Your task to perform on an android device: toggle airplane mode Image 0: 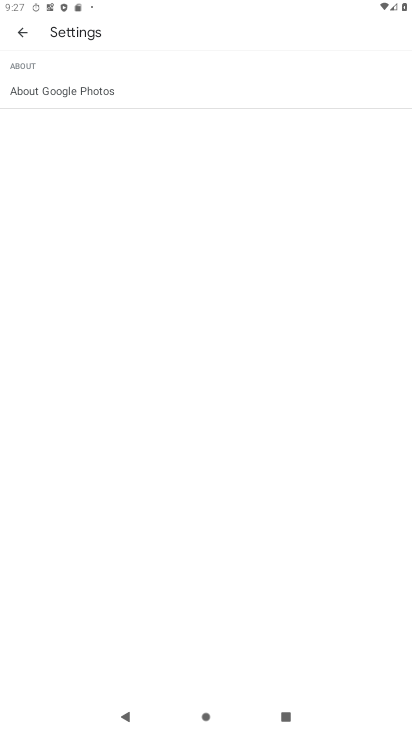
Step 0: click (16, 36)
Your task to perform on an android device: toggle airplane mode Image 1: 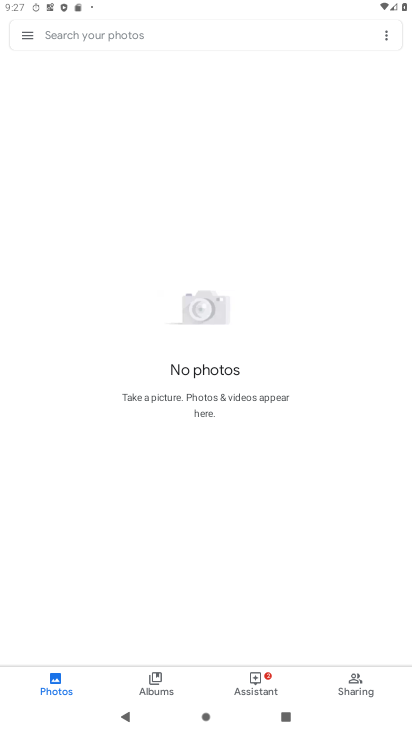
Step 1: press back button
Your task to perform on an android device: toggle airplane mode Image 2: 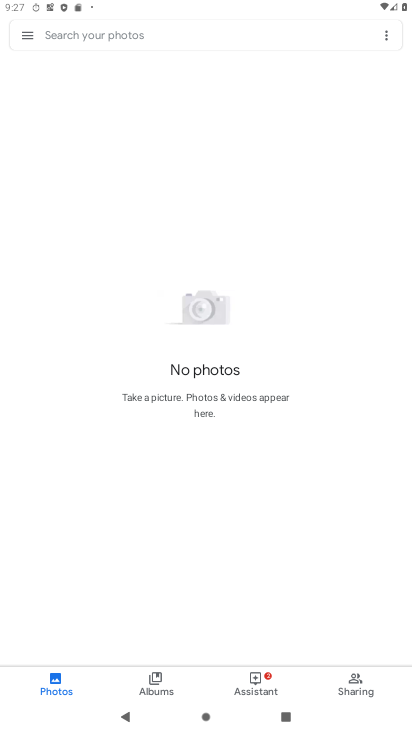
Step 2: press back button
Your task to perform on an android device: toggle airplane mode Image 3: 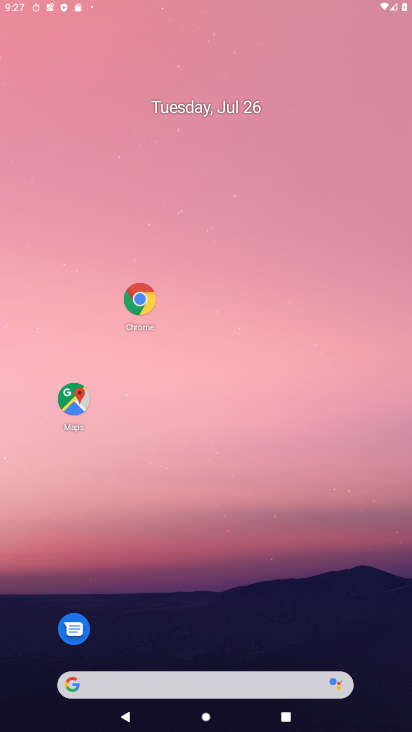
Step 3: press back button
Your task to perform on an android device: toggle airplane mode Image 4: 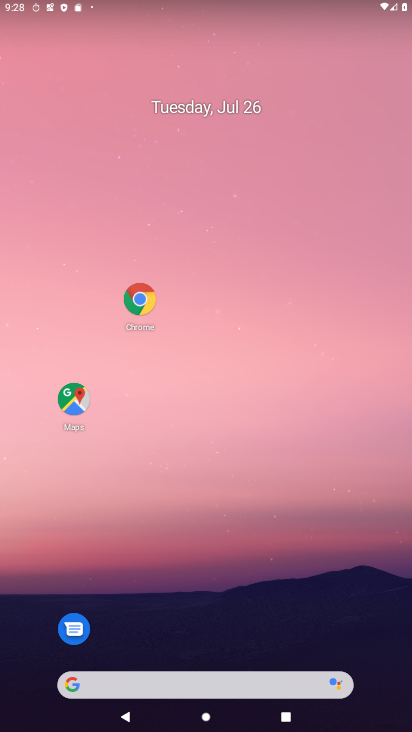
Step 4: click (174, 217)
Your task to perform on an android device: toggle airplane mode Image 5: 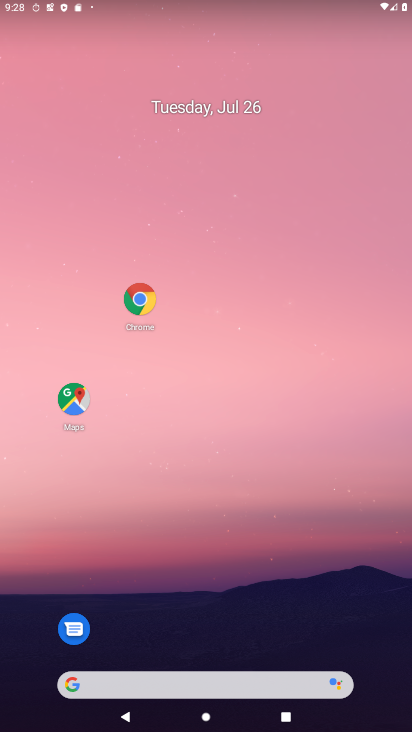
Step 5: drag from (232, 407) to (201, 73)
Your task to perform on an android device: toggle airplane mode Image 6: 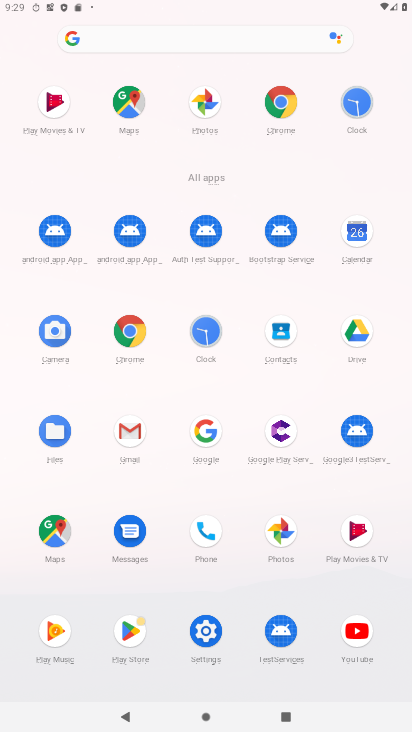
Step 6: click (202, 640)
Your task to perform on an android device: toggle airplane mode Image 7: 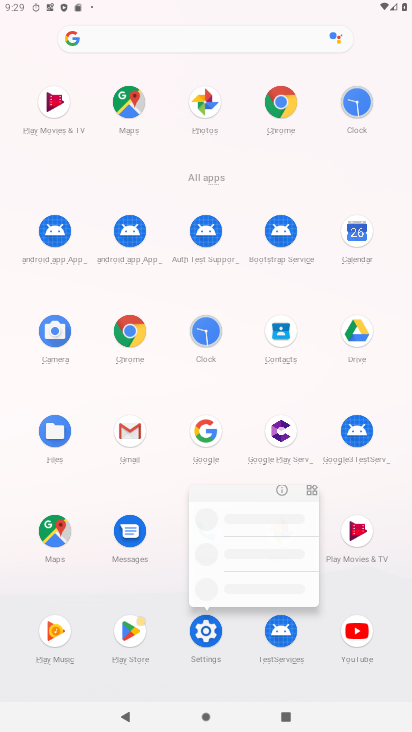
Step 7: click (211, 633)
Your task to perform on an android device: toggle airplane mode Image 8: 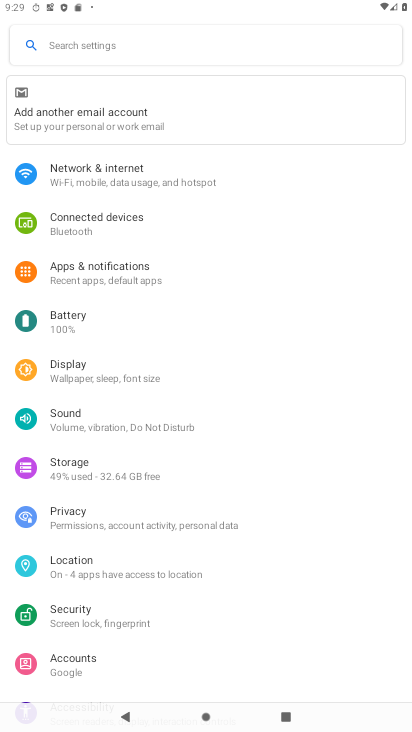
Step 8: click (108, 277)
Your task to perform on an android device: toggle airplane mode Image 9: 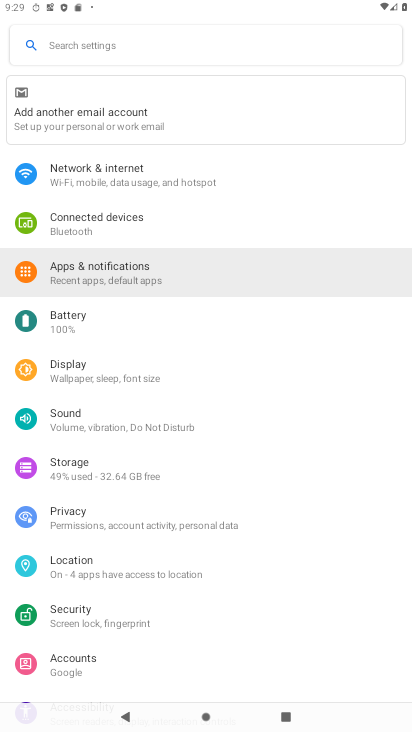
Step 9: click (109, 276)
Your task to perform on an android device: toggle airplane mode Image 10: 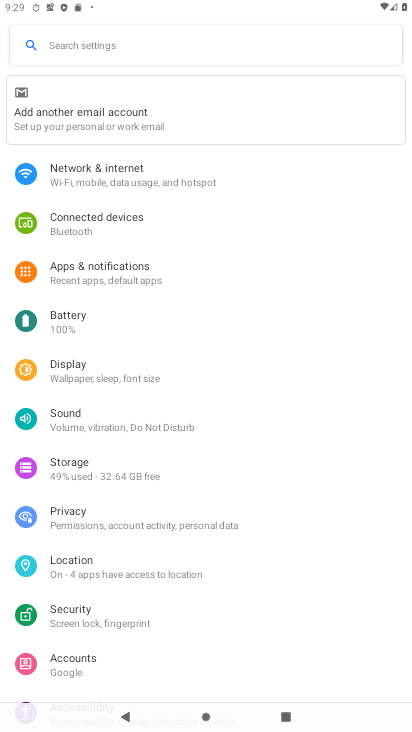
Step 10: click (111, 278)
Your task to perform on an android device: toggle airplane mode Image 11: 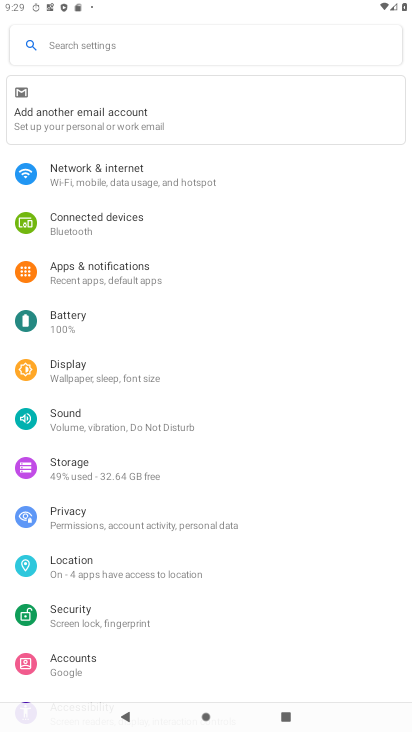
Step 11: click (111, 278)
Your task to perform on an android device: toggle airplane mode Image 12: 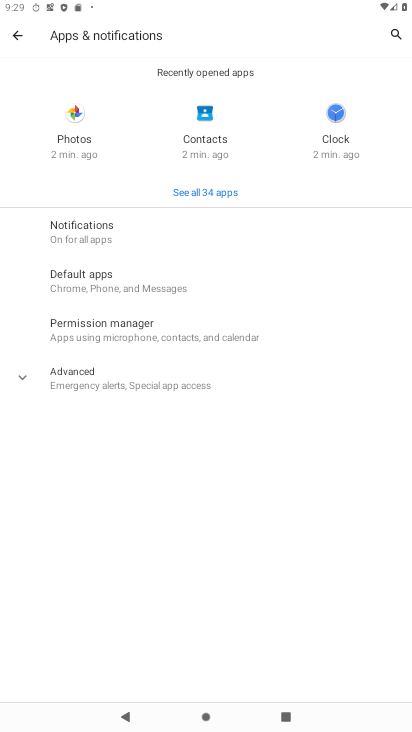
Step 12: click (18, 32)
Your task to perform on an android device: toggle airplane mode Image 13: 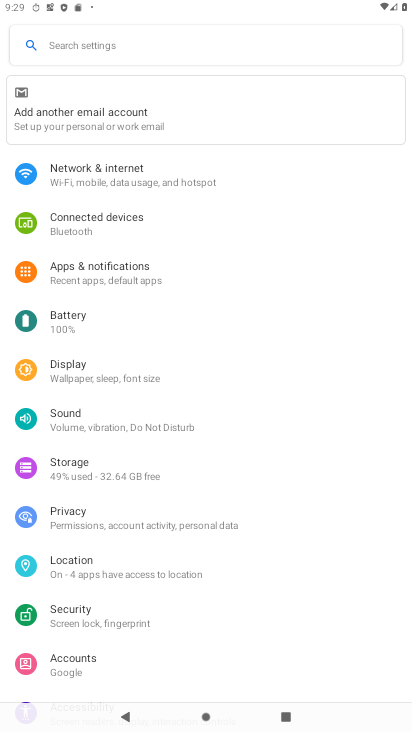
Step 13: click (104, 177)
Your task to perform on an android device: toggle airplane mode Image 14: 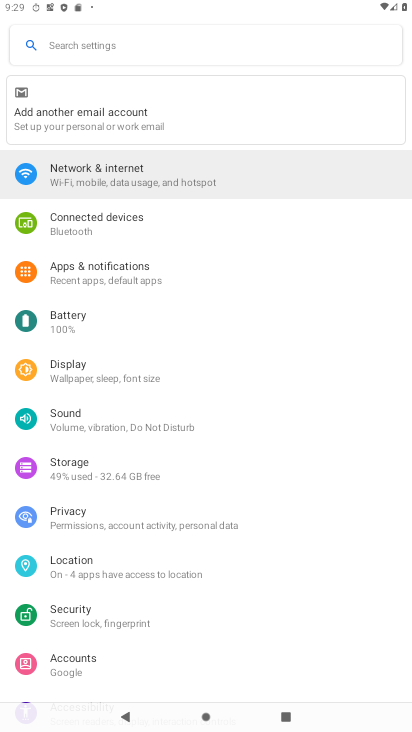
Step 14: click (105, 171)
Your task to perform on an android device: toggle airplane mode Image 15: 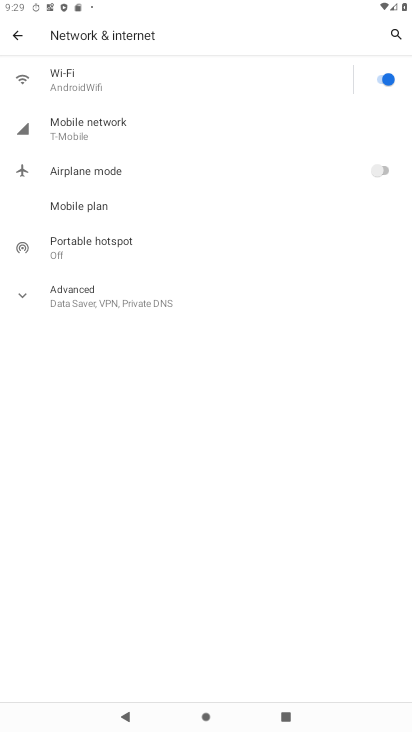
Step 15: click (379, 168)
Your task to perform on an android device: toggle airplane mode Image 16: 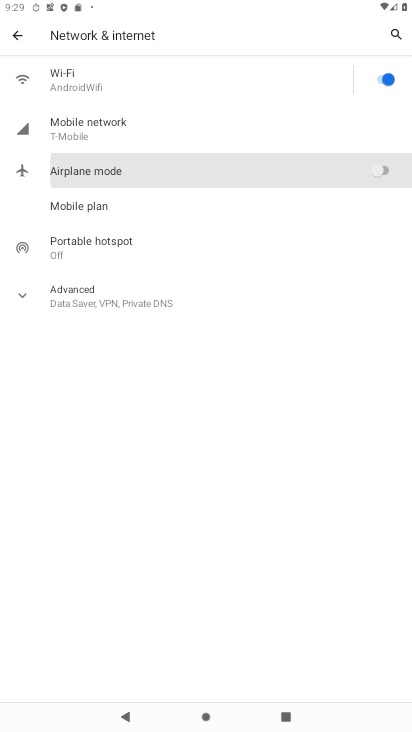
Step 16: click (379, 168)
Your task to perform on an android device: toggle airplane mode Image 17: 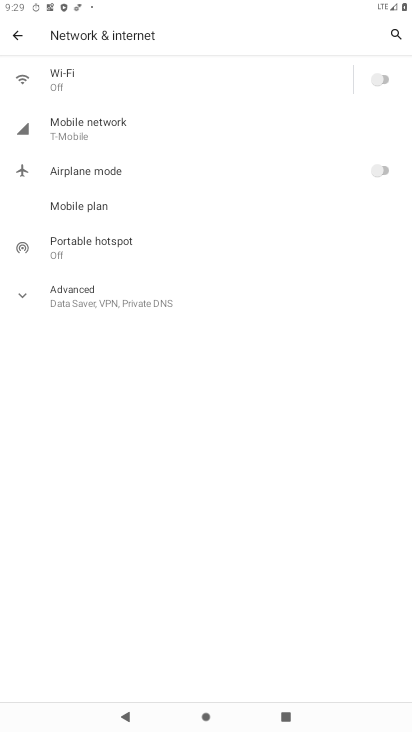
Step 17: click (376, 173)
Your task to perform on an android device: toggle airplane mode Image 18: 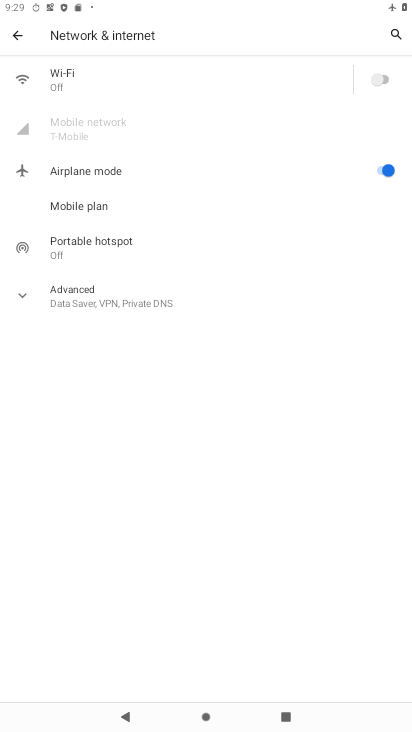
Step 18: task complete